Your task to perform on an android device: empty trash in google photos Image 0: 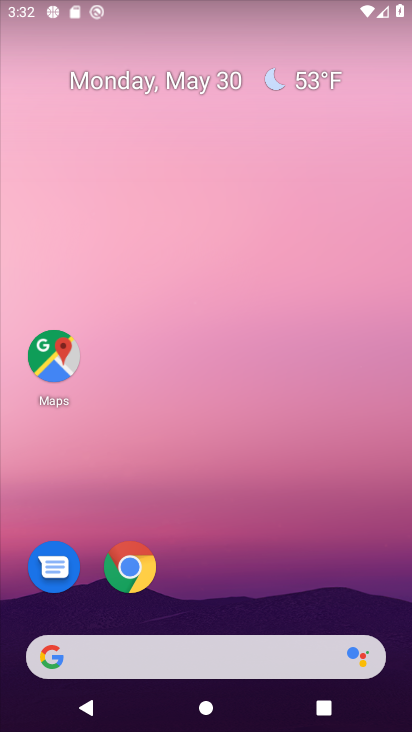
Step 0: drag from (221, 678) to (286, 13)
Your task to perform on an android device: empty trash in google photos Image 1: 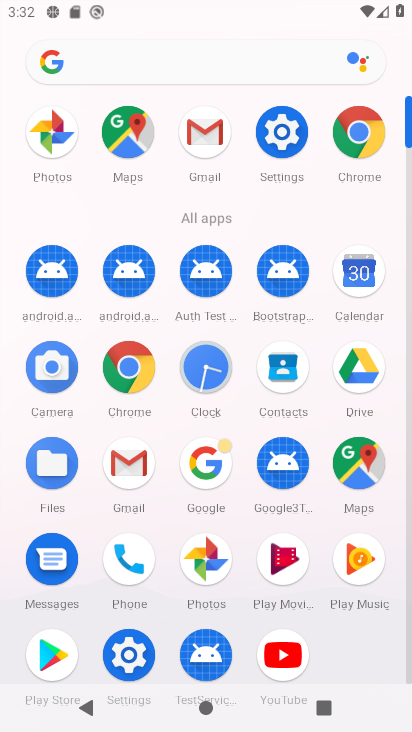
Step 1: click (215, 567)
Your task to perform on an android device: empty trash in google photos Image 2: 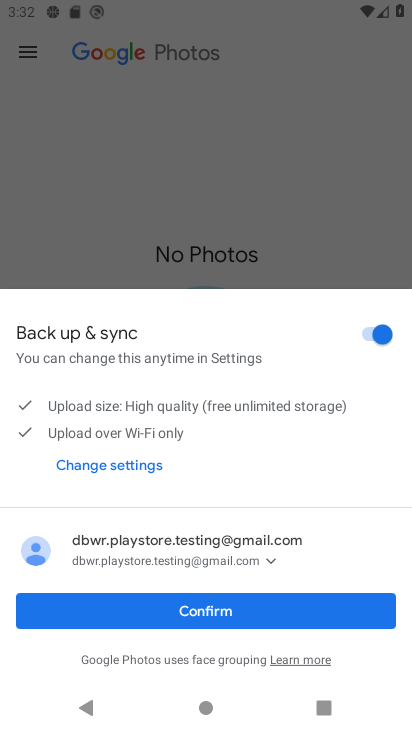
Step 2: click (244, 597)
Your task to perform on an android device: empty trash in google photos Image 3: 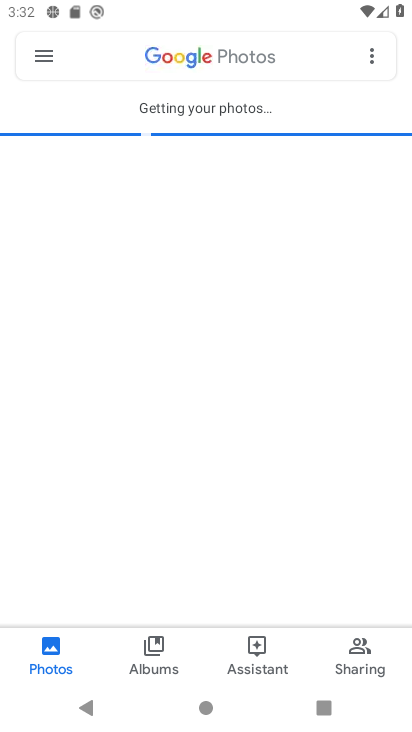
Step 3: drag from (28, 52) to (63, 45)
Your task to perform on an android device: empty trash in google photos Image 4: 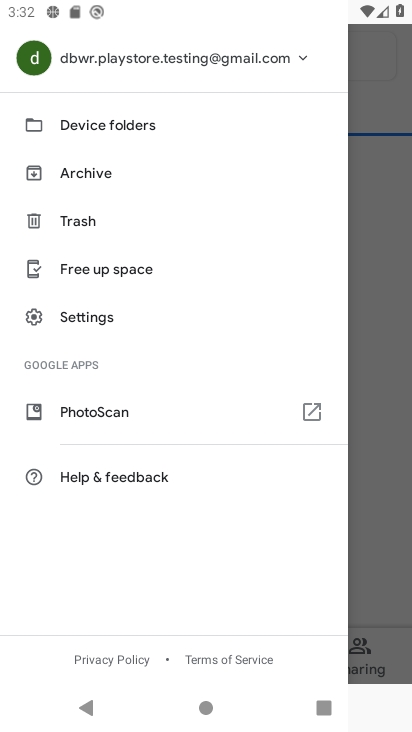
Step 4: click (83, 218)
Your task to perform on an android device: empty trash in google photos Image 5: 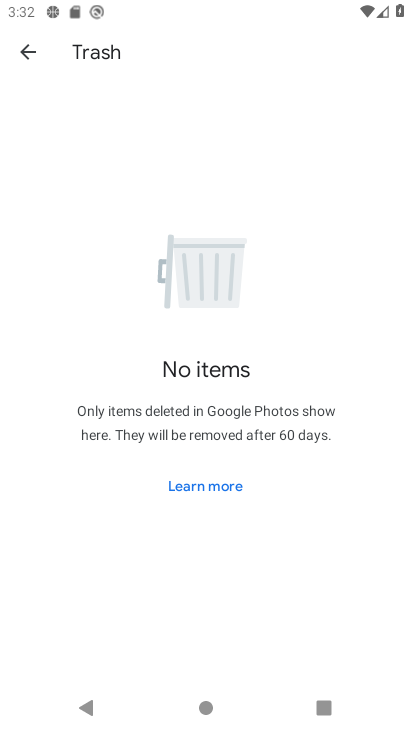
Step 5: task complete